Your task to perform on an android device: Check the weather Image 0: 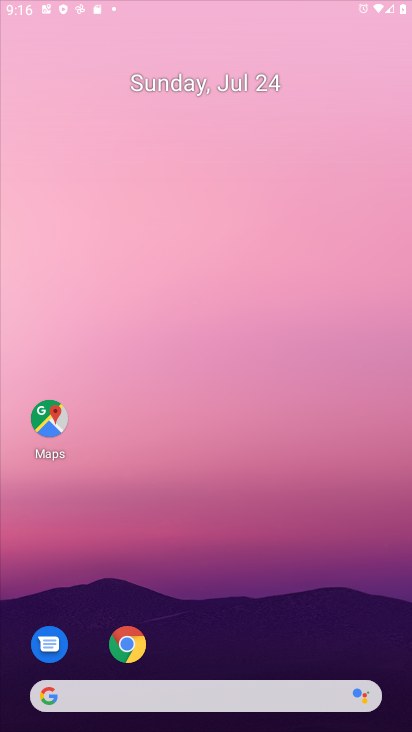
Step 0: drag from (284, 588) to (205, 0)
Your task to perform on an android device: Check the weather Image 1: 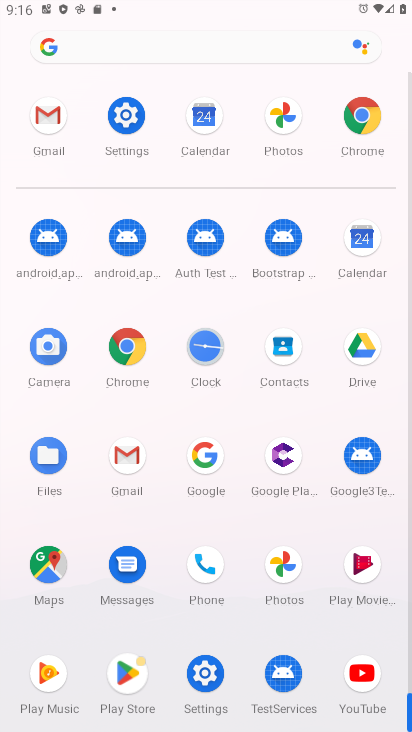
Step 1: click (356, 113)
Your task to perform on an android device: Check the weather Image 2: 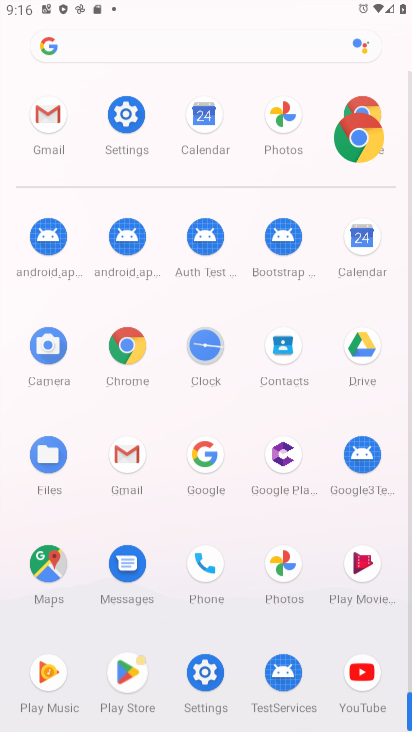
Step 2: click (356, 113)
Your task to perform on an android device: Check the weather Image 3: 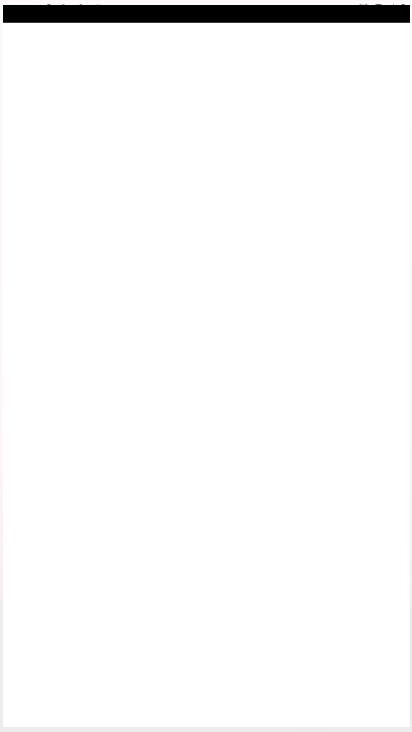
Step 3: click (357, 116)
Your task to perform on an android device: Check the weather Image 4: 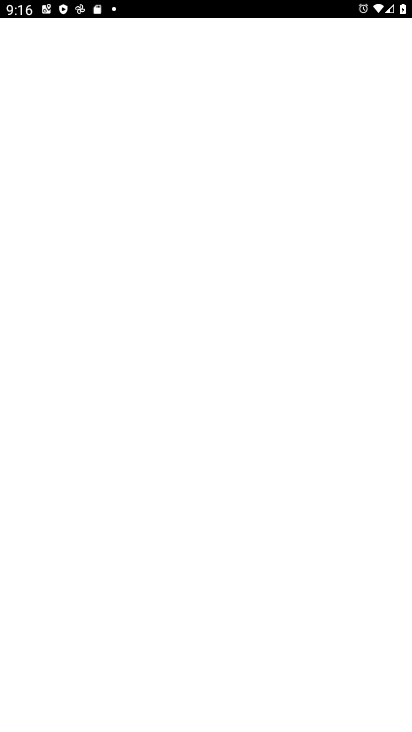
Step 4: click (356, 115)
Your task to perform on an android device: Check the weather Image 5: 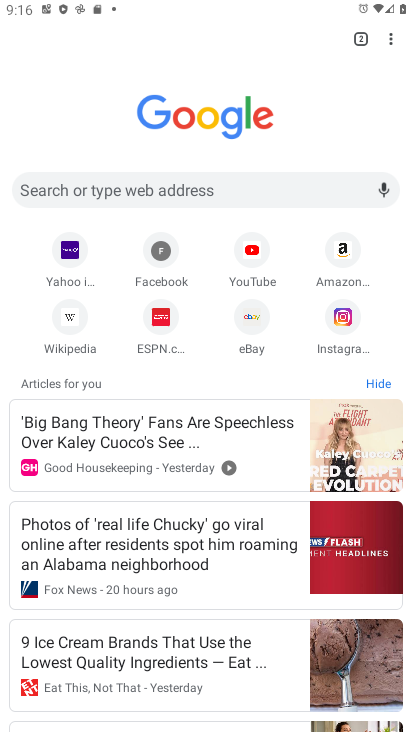
Step 5: click (56, 196)
Your task to perform on an android device: Check the weather Image 6: 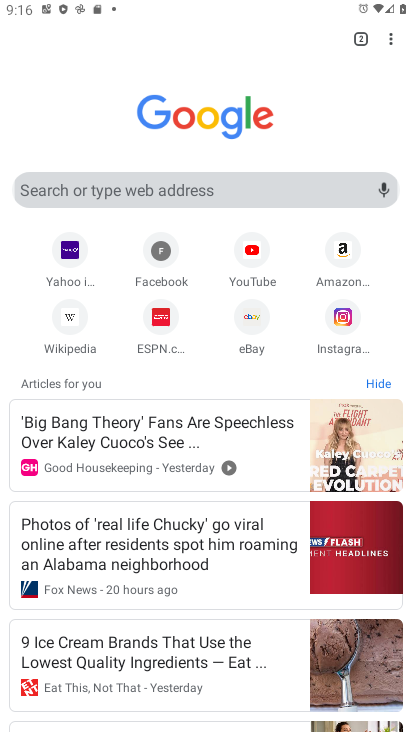
Step 6: click (62, 195)
Your task to perform on an android device: Check the weather Image 7: 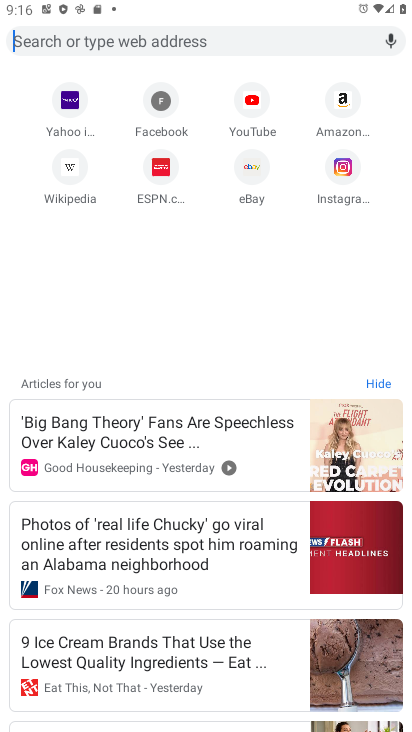
Step 7: click (70, 199)
Your task to perform on an android device: Check the weather Image 8: 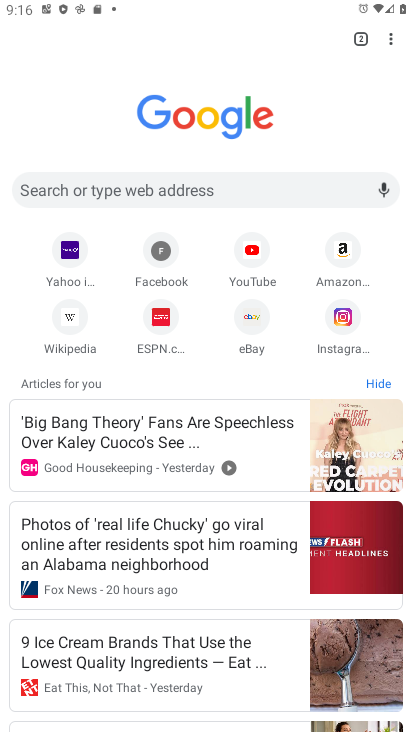
Step 8: click (89, 192)
Your task to perform on an android device: Check the weather Image 9: 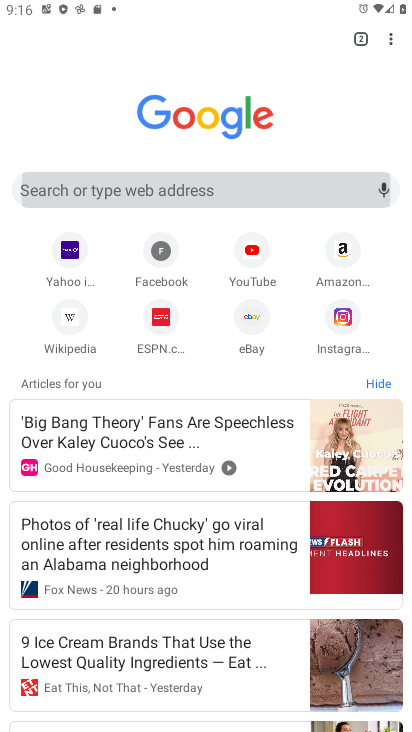
Step 9: click (89, 191)
Your task to perform on an android device: Check the weather Image 10: 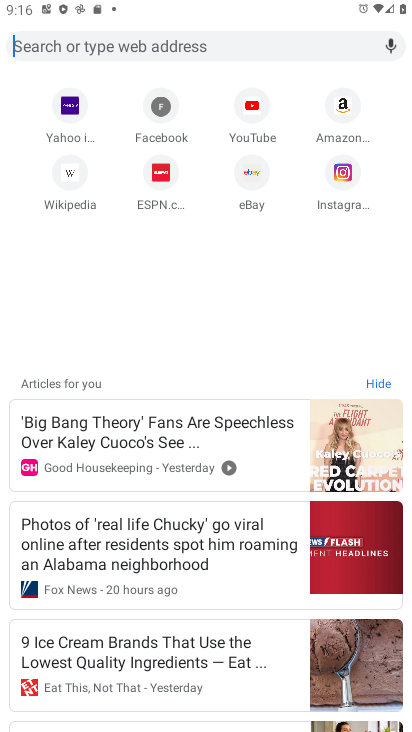
Step 10: click (89, 191)
Your task to perform on an android device: Check the weather Image 11: 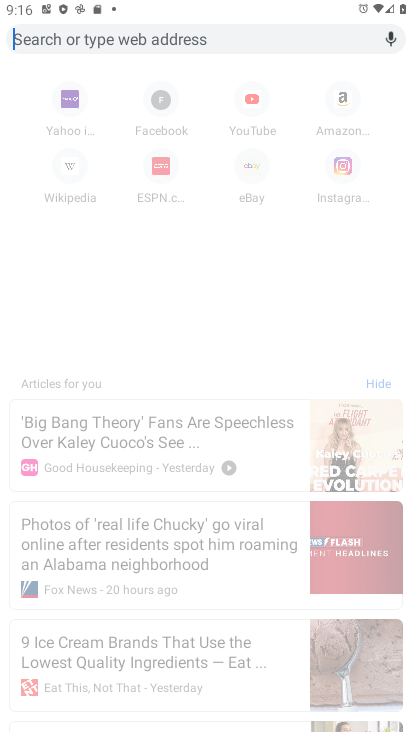
Step 11: click (91, 189)
Your task to perform on an android device: Check the weather Image 12: 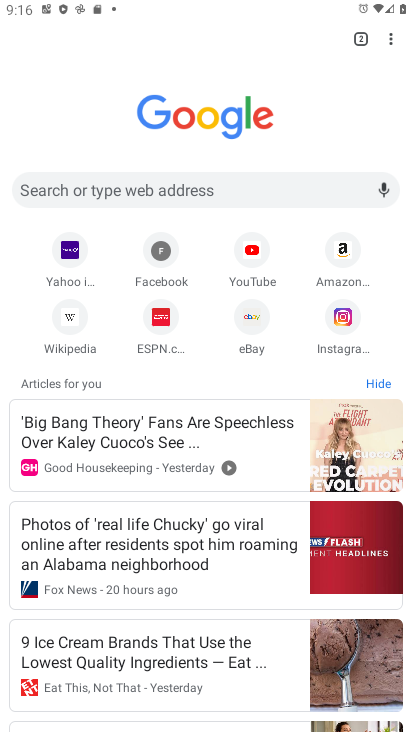
Step 12: click (48, 189)
Your task to perform on an android device: Check the weather Image 13: 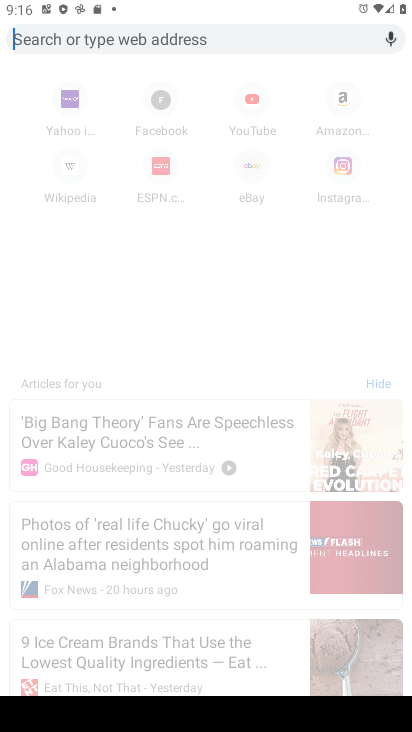
Step 13: type "weather for today?"
Your task to perform on an android device: Check the weather Image 14: 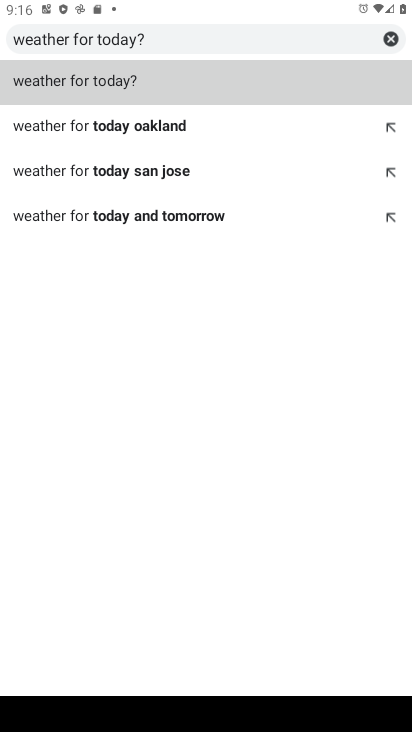
Step 14: click (95, 85)
Your task to perform on an android device: Check the weather Image 15: 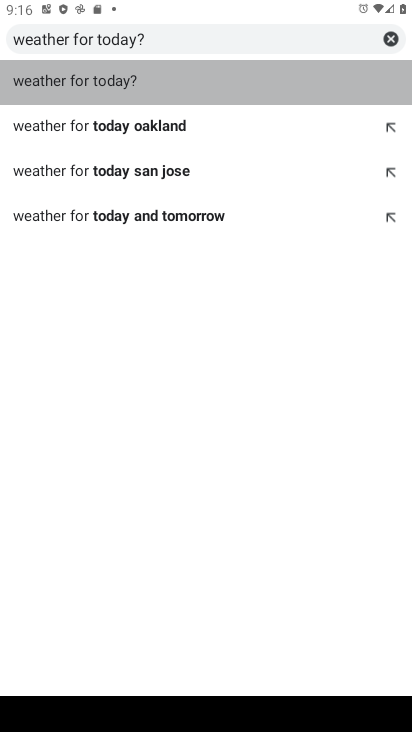
Step 15: click (109, 91)
Your task to perform on an android device: Check the weather Image 16: 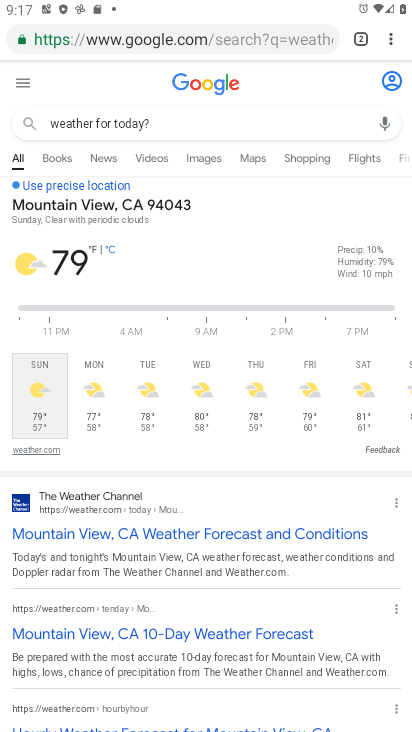
Step 16: task complete